Your task to perform on an android device: Open privacy settings Image 0: 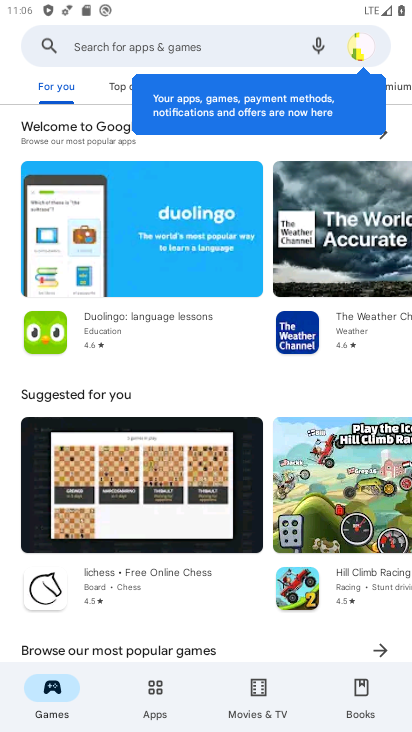
Step 0: press home button
Your task to perform on an android device: Open privacy settings Image 1: 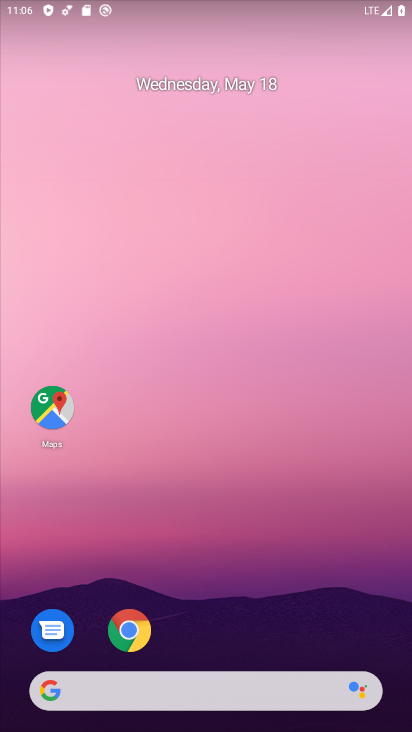
Step 1: drag from (211, 611) to (304, 99)
Your task to perform on an android device: Open privacy settings Image 2: 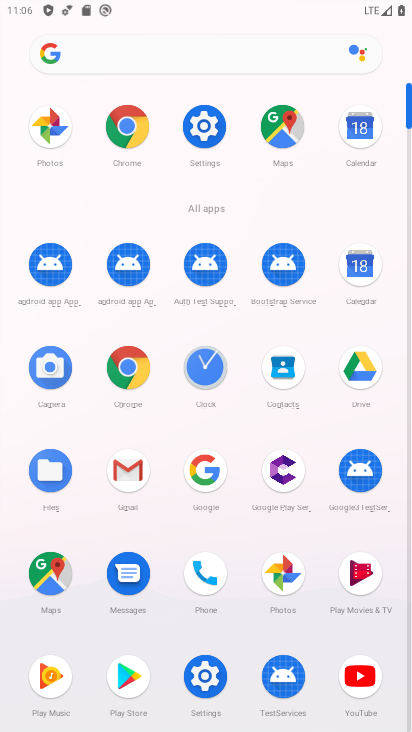
Step 2: click (204, 128)
Your task to perform on an android device: Open privacy settings Image 3: 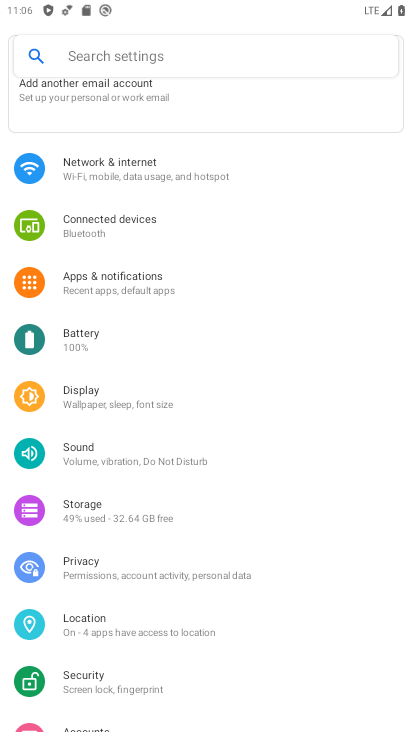
Step 3: click (112, 556)
Your task to perform on an android device: Open privacy settings Image 4: 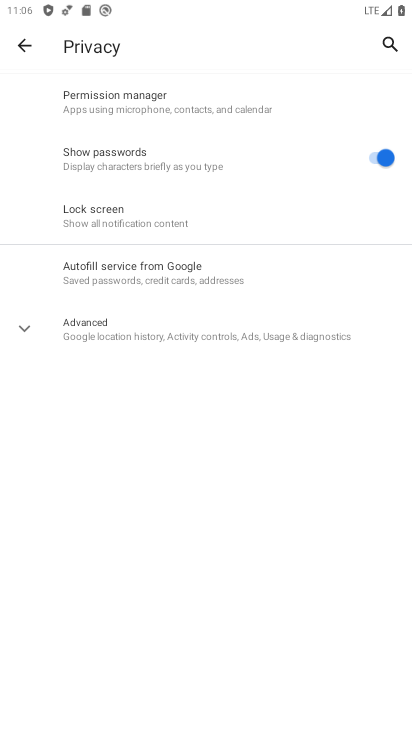
Step 4: task complete